Your task to perform on an android device: Open display settings Image 0: 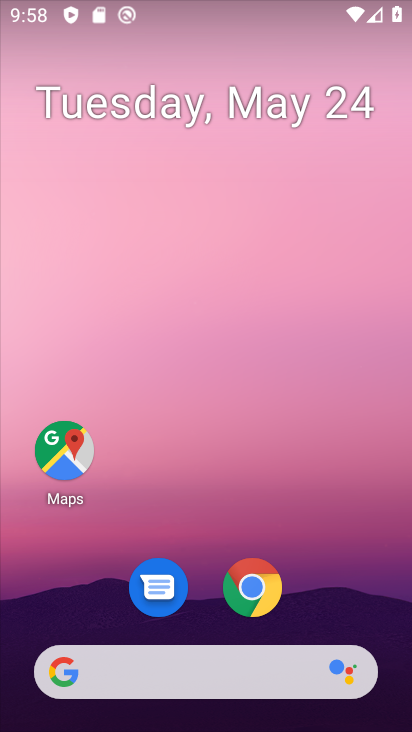
Step 0: press home button
Your task to perform on an android device: Open display settings Image 1: 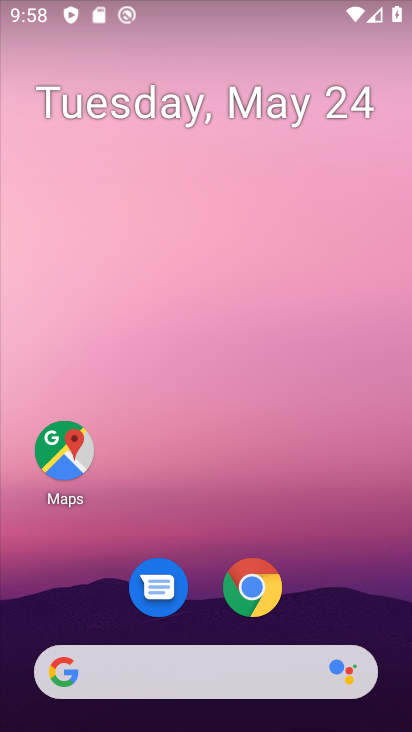
Step 1: drag from (356, 622) to (326, 183)
Your task to perform on an android device: Open display settings Image 2: 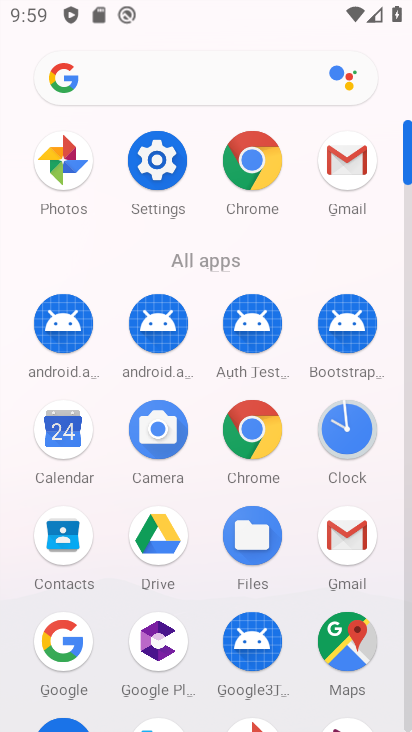
Step 2: click (176, 172)
Your task to perform on an android device: Open display settings Image 3: 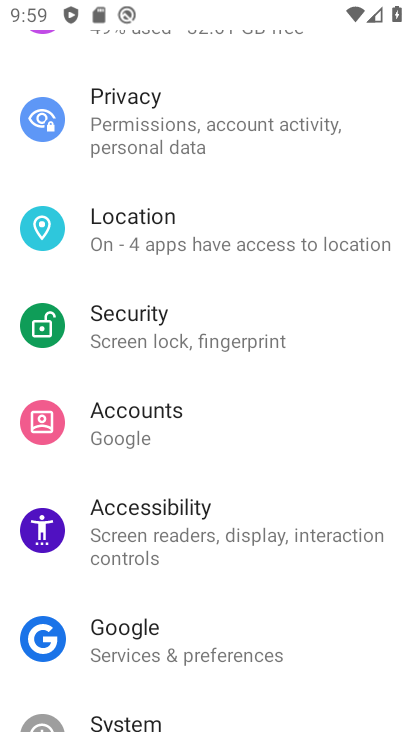
Step 3: drag from (191, 140) to (231, 624)
Your task to perform on an android device: Open display settings Image 4: 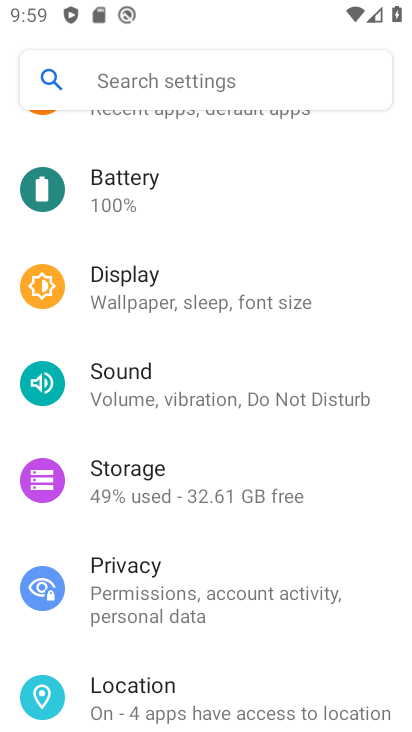
Step 4: click (192, 293)
Your task to perform on an android device: Open display settings Image 5: 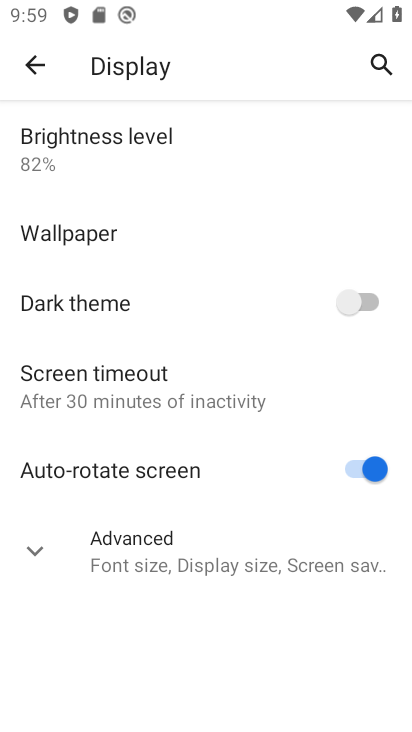
Step 5: task complete